Your task to perform on an android device: Go to internet settings Image 0: 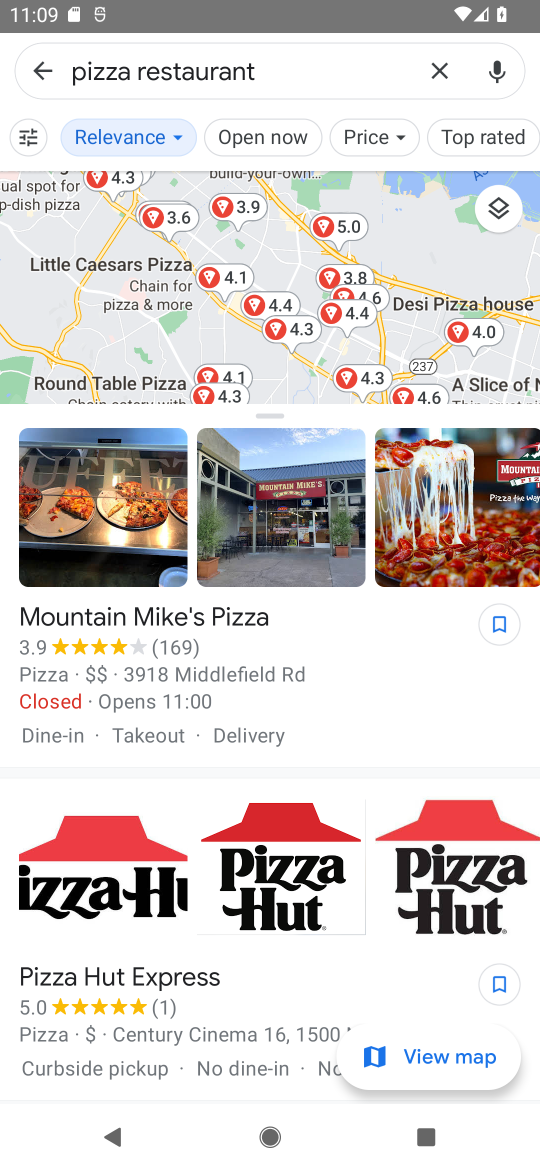
Step 0: press home button
Your task to perform on an android device: Go to internet settings Image 1: 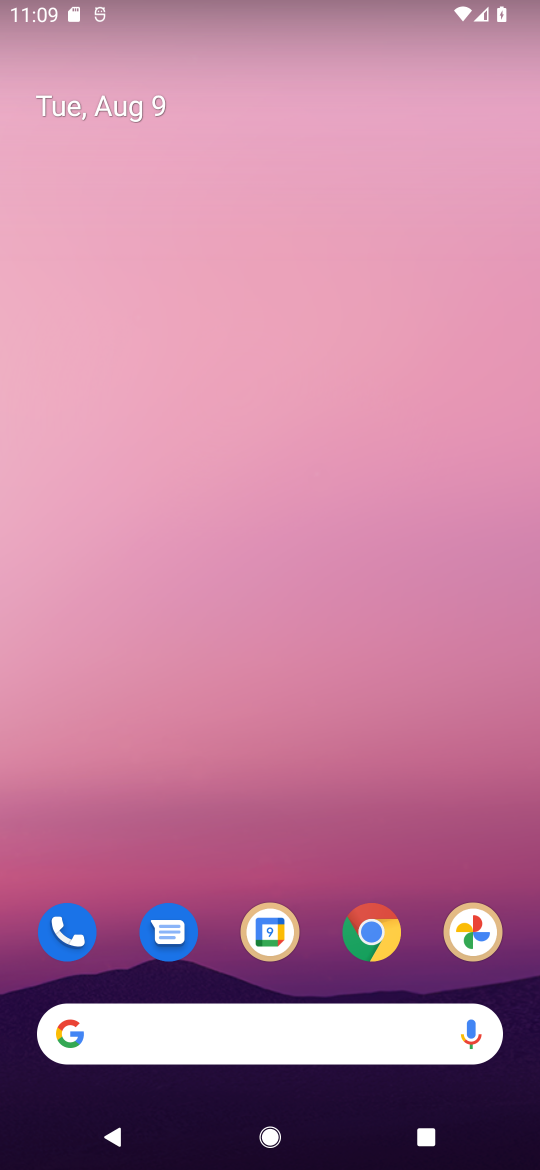
Step 1: drag from (306, 941) to (254, 15)
Your task to perform on an android device: Go to internet settings Image 2: 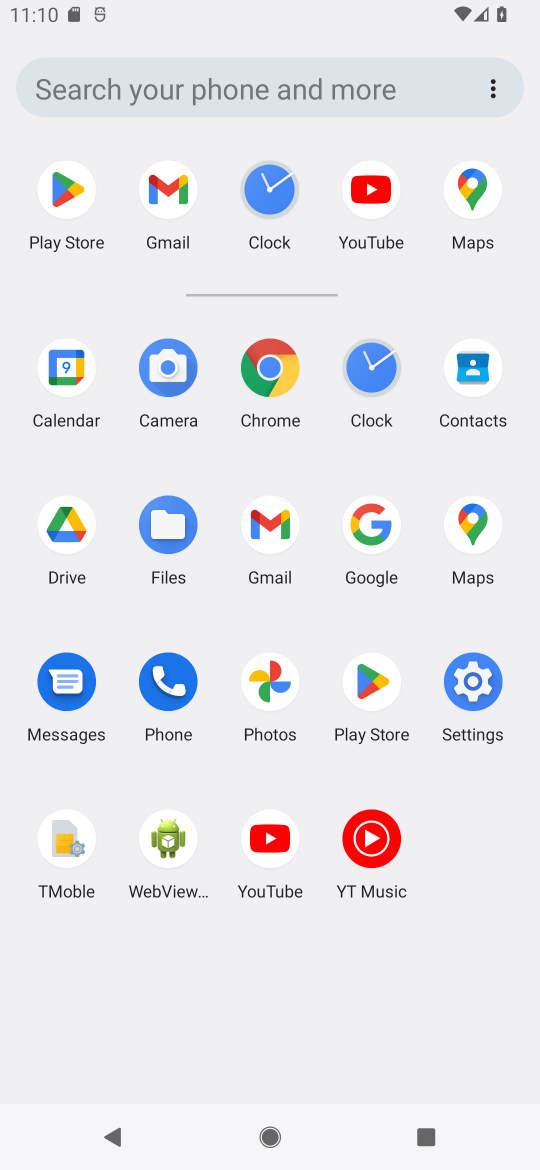
Step 2: click (470, 688)
Your task to perform on an android device: Go to internet settings Image 3: 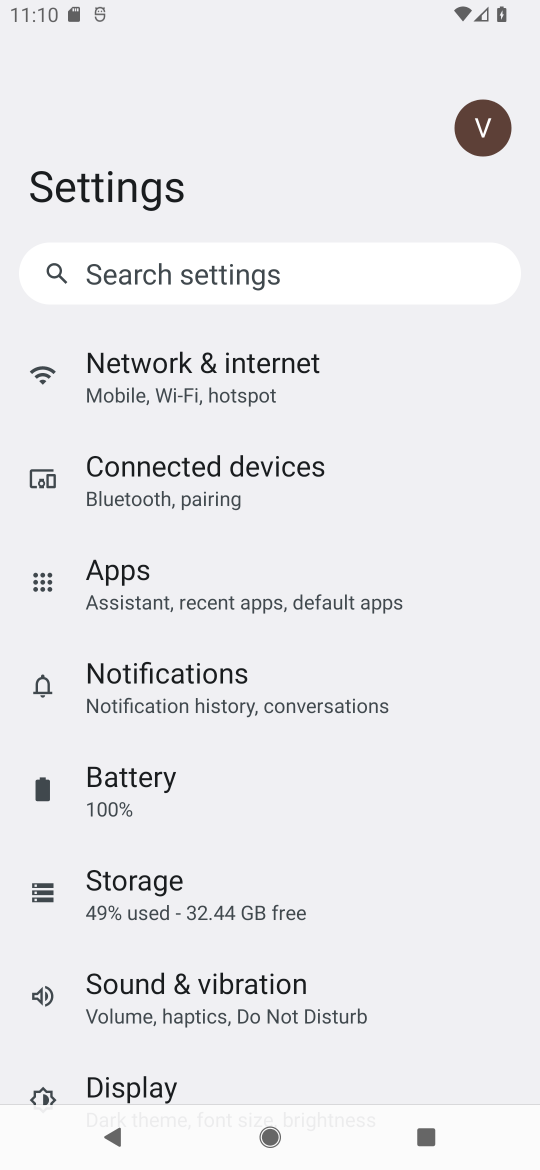
Step 3: click (220, 359)
Your task to perform on an android device: Go to internet settings Image 4: 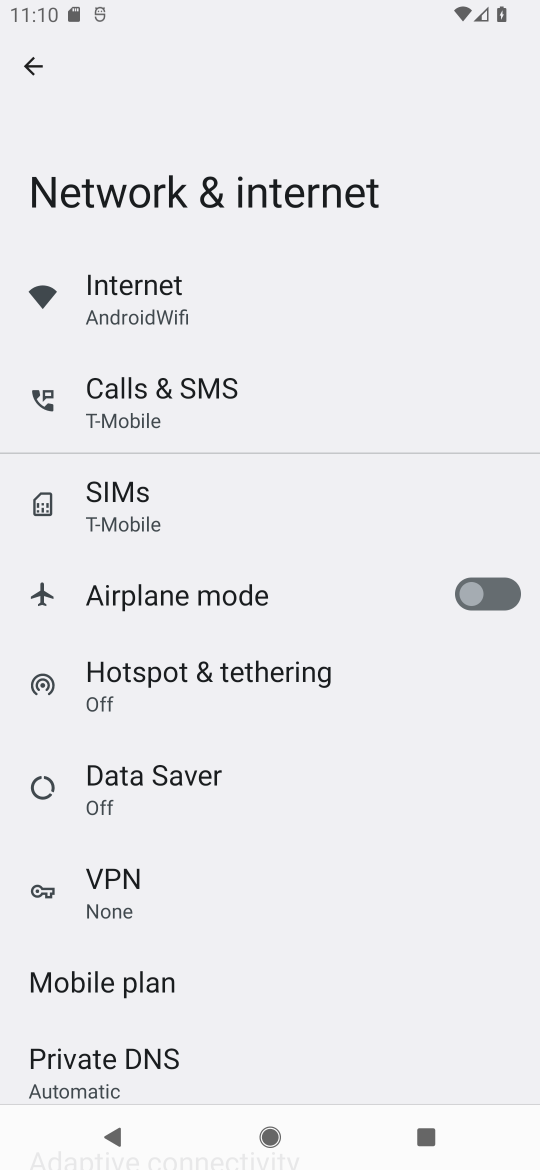
Step 4: task complete